Your task to perform on an android device: Go to network settings Image 0: 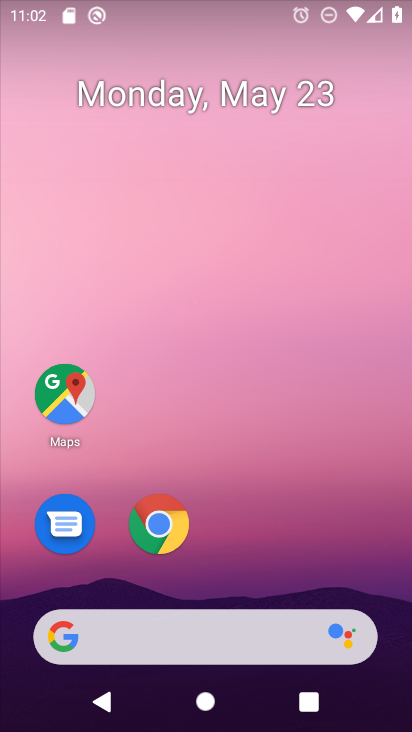
Step 0: drag from (217, 581) to (217, 249)
Your task to perform on an android device: Go to network settings Image 1: 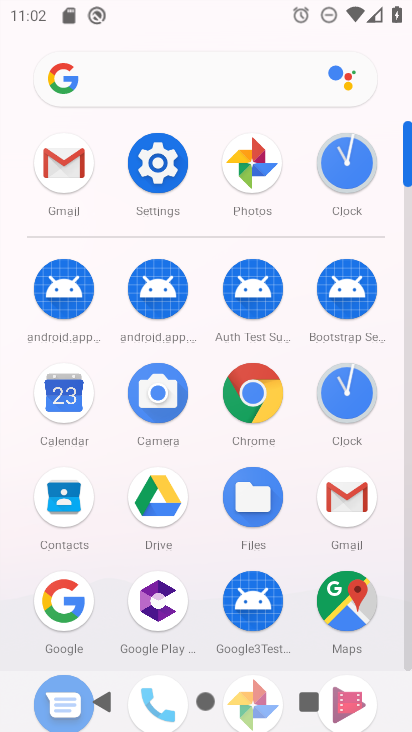
Step 1: click (156, 186)
Your task to perform on an android device: Go to network settings Image 2: 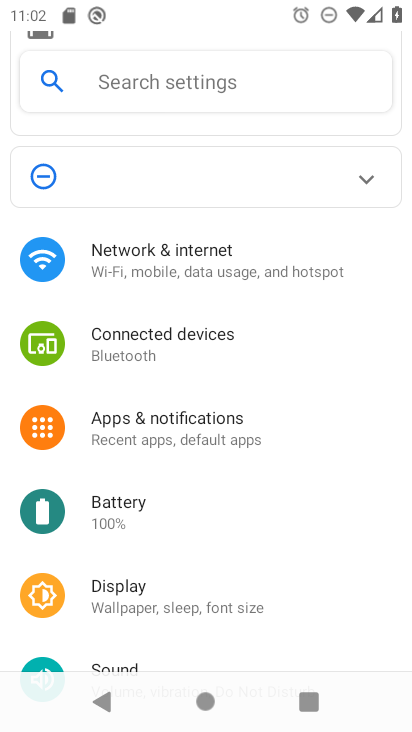
Step 2: click (235, 268)
Your task to perform on an android device: Go to network settings Image 3: 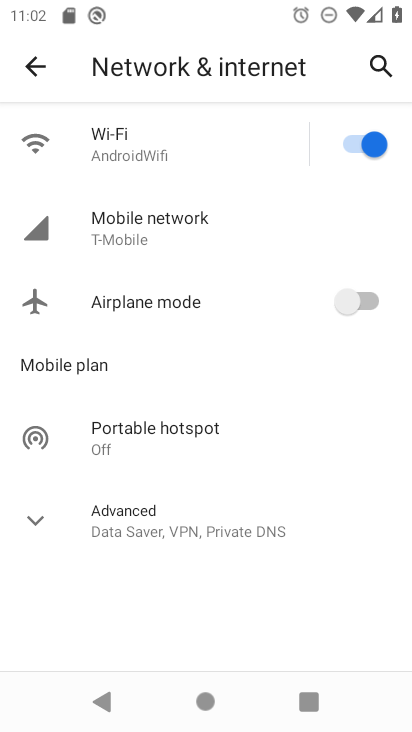
Step 3: click (220, 229)
Your task to perform on an android device: Go to network settings Image 4: 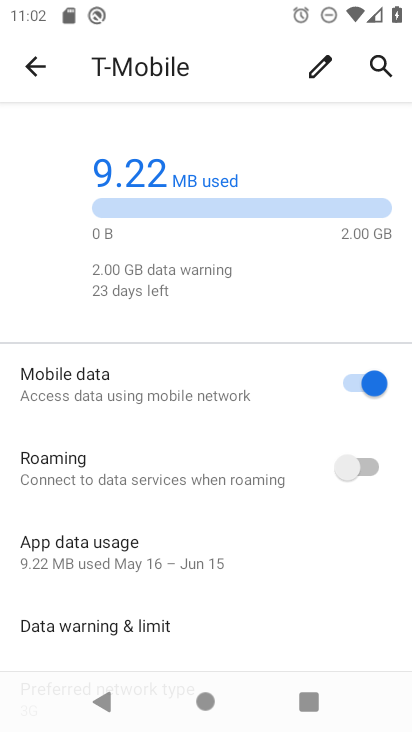
Step 4: task complete